Your task to perform on an android device: toggle location history Image 0: 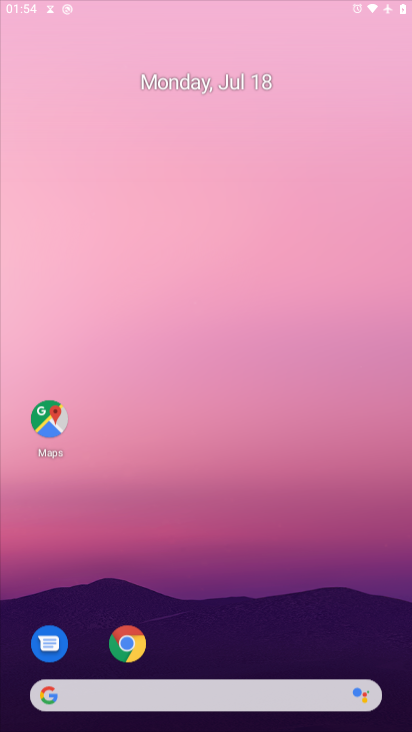
Step 0: press home button
Your task to perform on an android device: toggle location history Image 1: 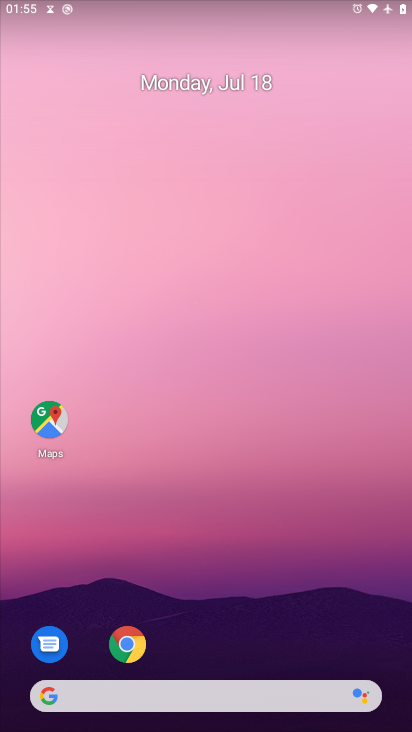
Step 1: drag from (216, 609) to (174, 34)
Your task to perform on an android device: toggle location history Image 2: 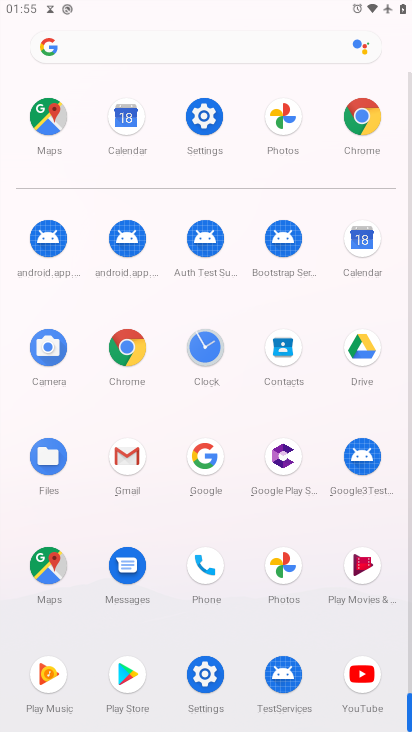
Step 2: click (207, 114)
Your task to perform on an android device: toggle location history Image 3: 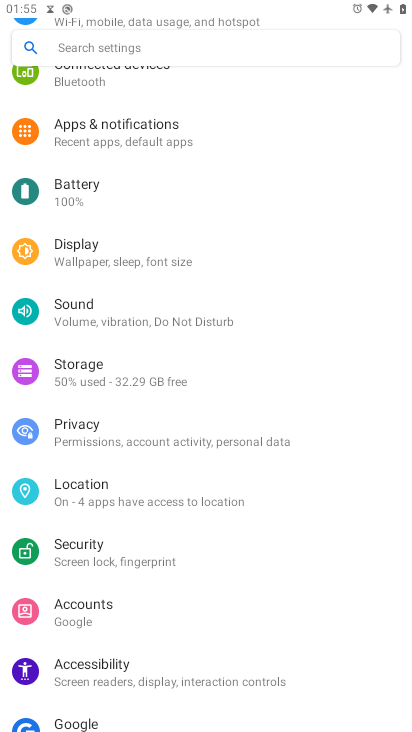
Step 3: click (87, 497)
Your task to perform on an android device: toggle location history Image 4: 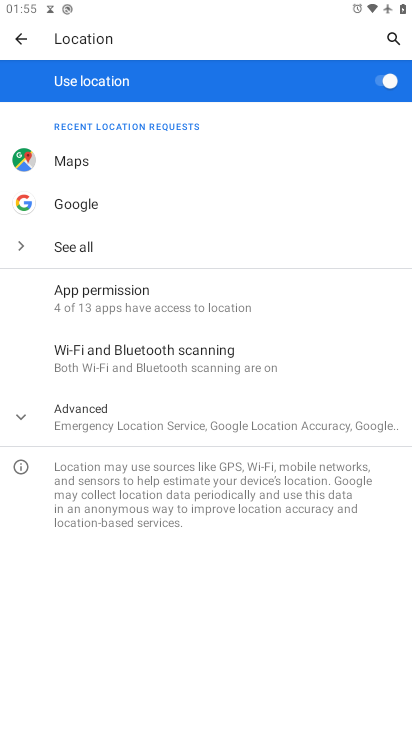
Step 4: click (70, 408)
Your task to perform on an android device: toggle location history Image 5: 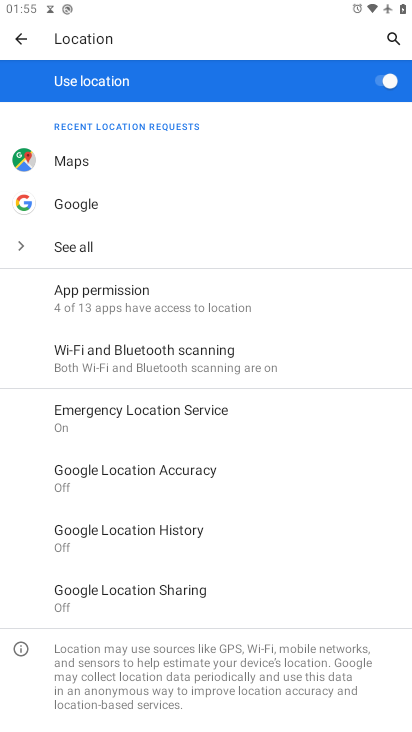
Step 5: click (149, 537)
Your task to perform on an android device: toggle location history Image 6: 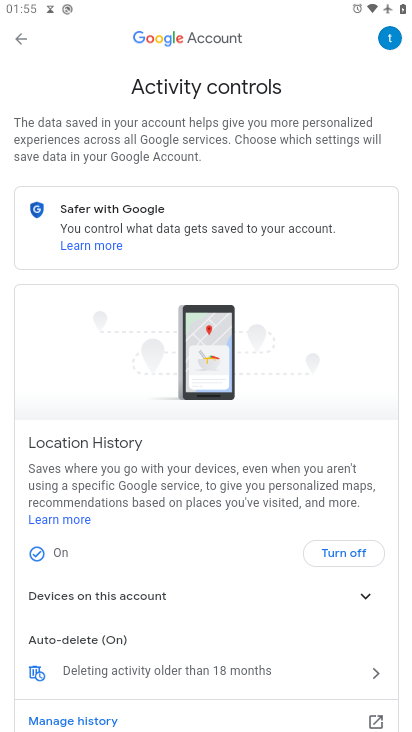
Step 6: click (348, 554)
Your task to perform on an android device: toggle location history Image 7: 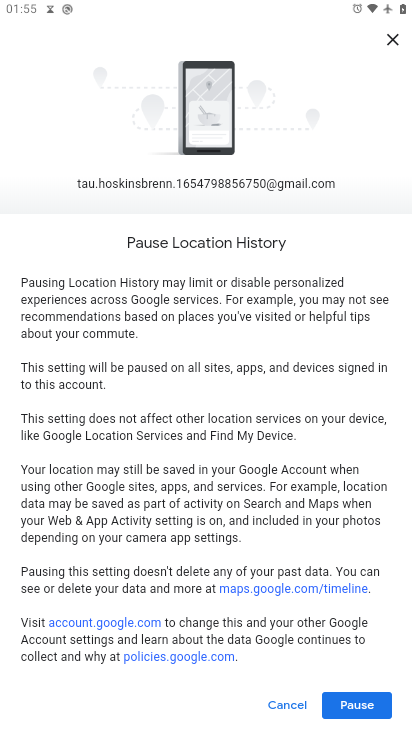
Step 7: click (341, 713)
Your task to perform on an android device: toggle location history Image 8: 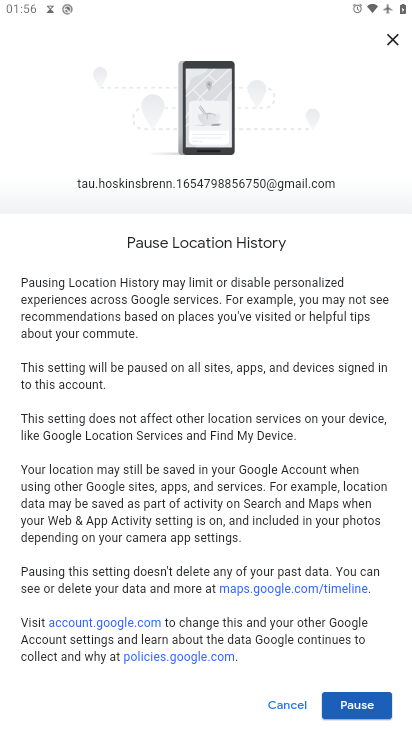
Step 8: click (343, 700)
Your task to perform on an android device: toggle location history Image 9: 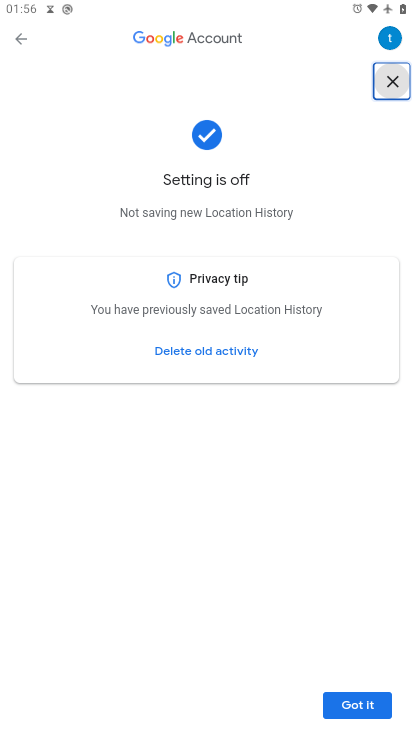
Step 9: click (343, 708)
Your task to perform on an android device: toggle location history Image 10: 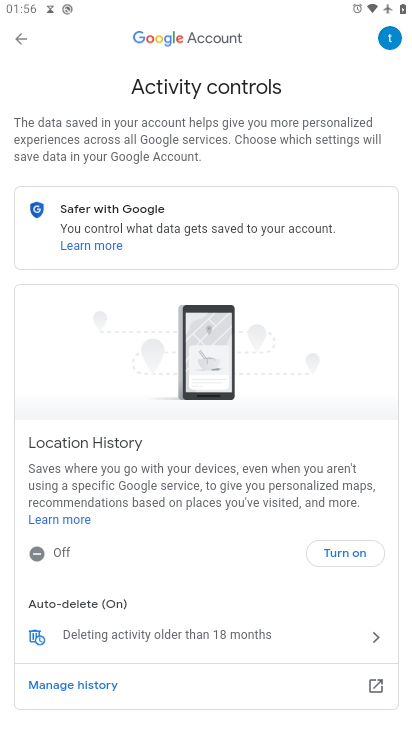
Step 10: task complete